Your task to perform on an android device: Go to eBay Image 0: 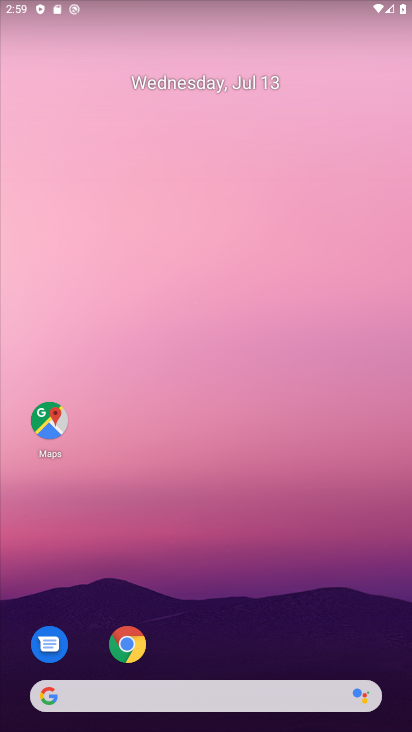
Step 0: click (128, 645)
Your task to perform on an android device: Go to eBay Image 1: 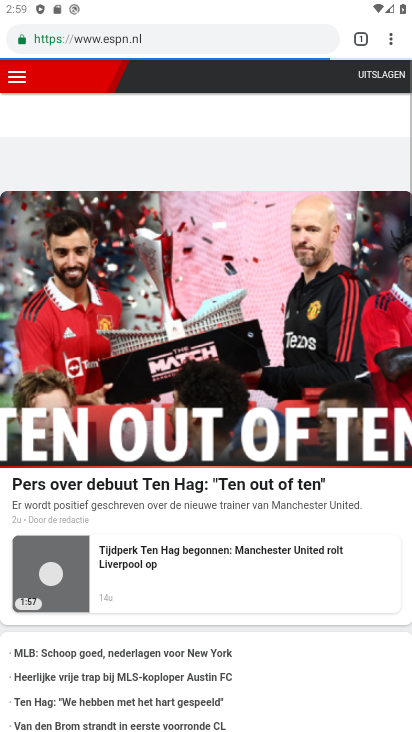
Step 1: click (241, 37)
Your task to perform on an android device: Go to eBay Image 2: 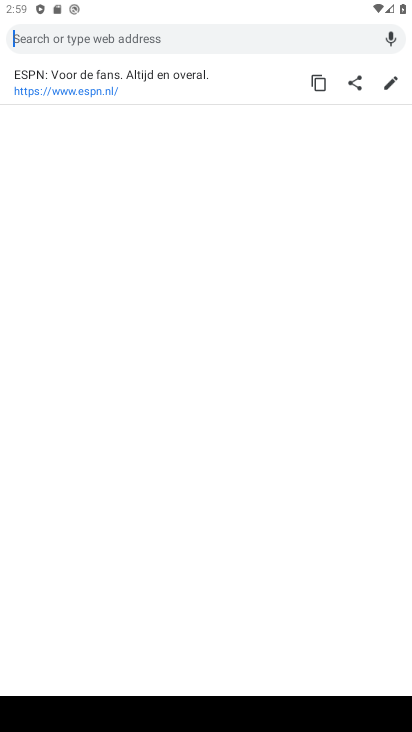
Step 2: type "eBay"
Your task to perform on an android device: Go to eBay Image 3: 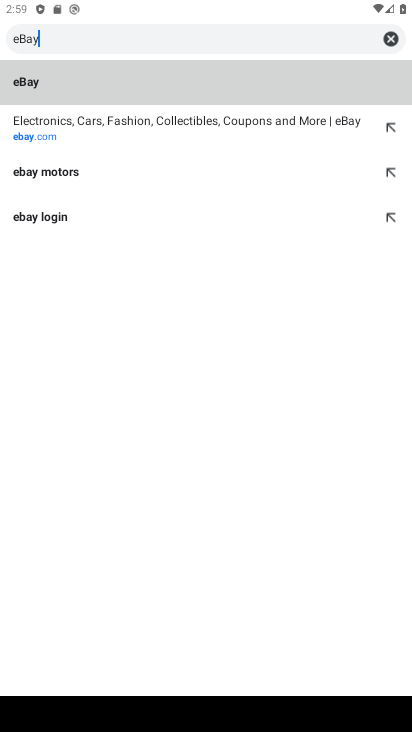
Step 3: click (87, 88)
Your task to perform on an android device: Go to eBay Image 4: 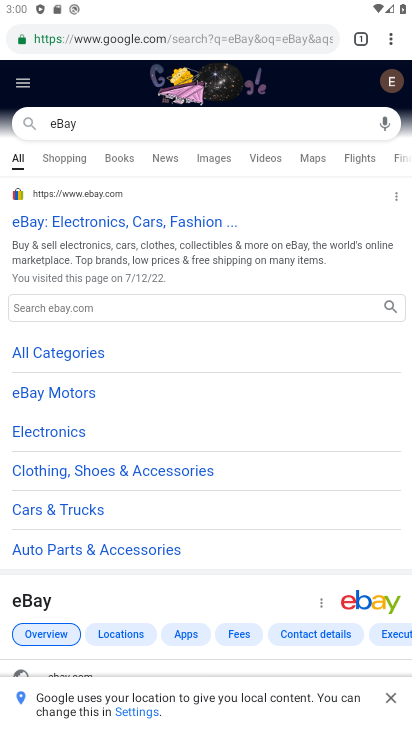
Step 4: click (161, 226)
Your task to perform on an android device: Go to eBay Image 5: 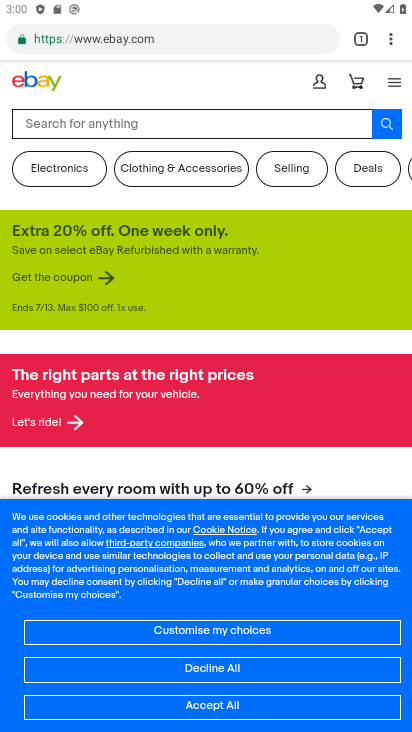
Step 5: task complete